Your task to perform on an android device: What's the weather today? Image 0: 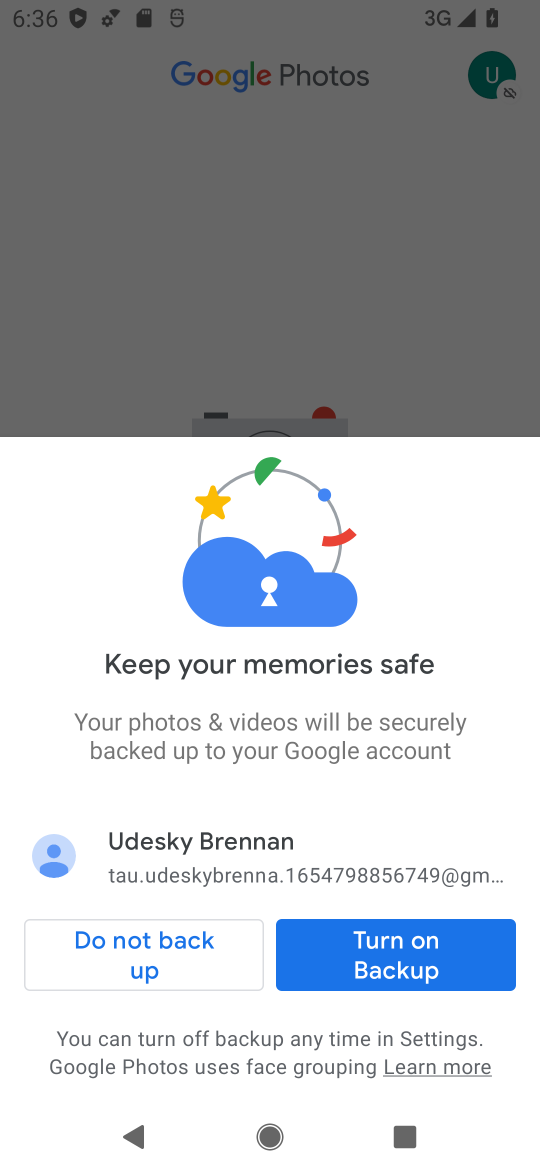
Step 0: press home button
Your task to perform on an android device: What's the weather today? Image 1: 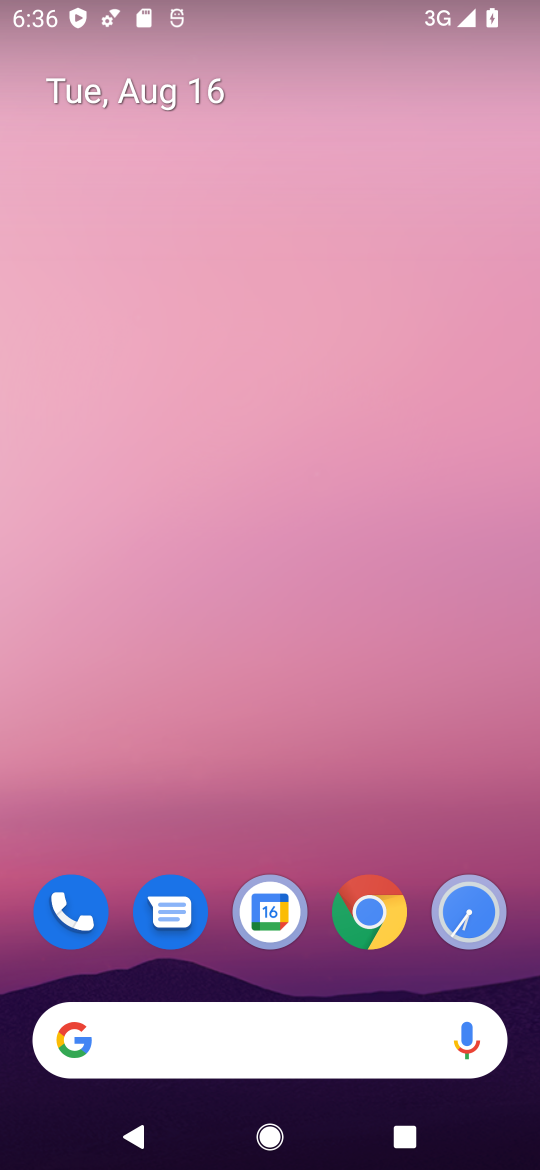
Step 1: click (165, 1028)
Your task to perform on an android device: What's the weather today? Image 2: 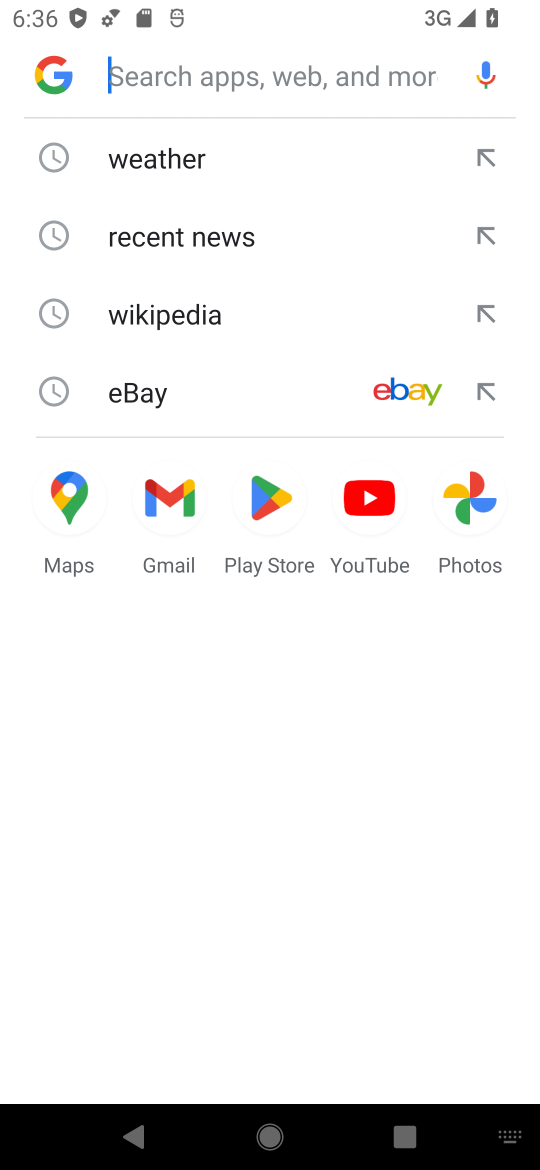
Step 2: click (177, 150)
Your task to perform on an android device: What's the weather today? Image 3: 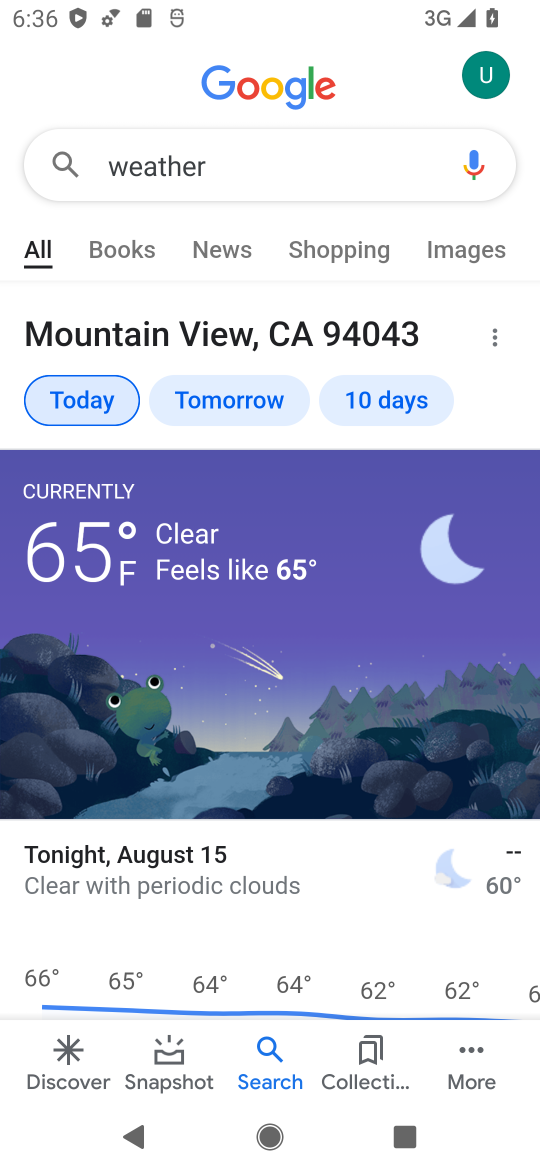
Step 3: task complete